Your task to perform on an android device: create a new album in the google photos Image 0: 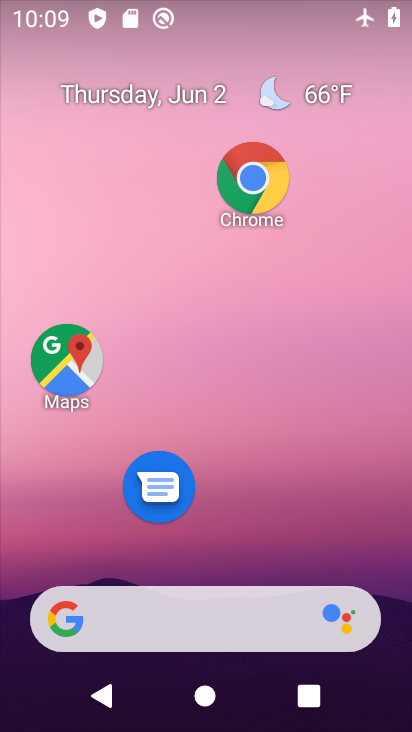
Step 0: drag from (233, 728) to (169, 25)
Your task to perform on an android device: create a new album in the google photos Image 1: 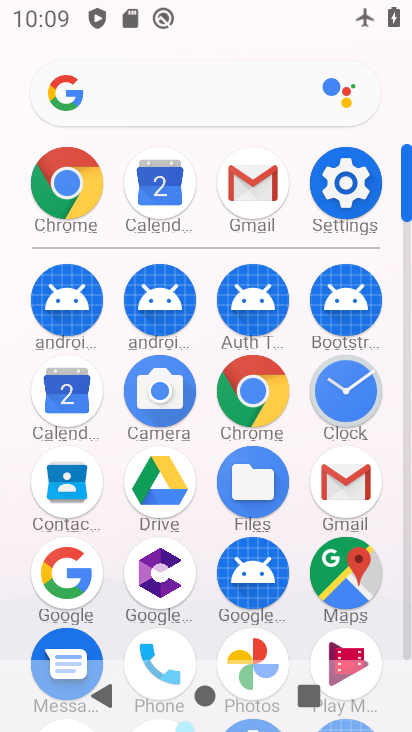
Step 1: click (248, 654)
Your task to perform on an android device: create a new album in the google photos Image 2: 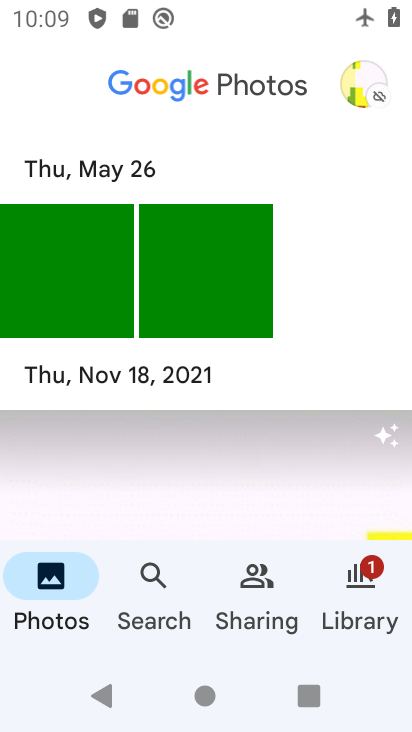
Step 2: click (361, 592)
Your task to perform on an android device: create a new album in the google photos Image 3: 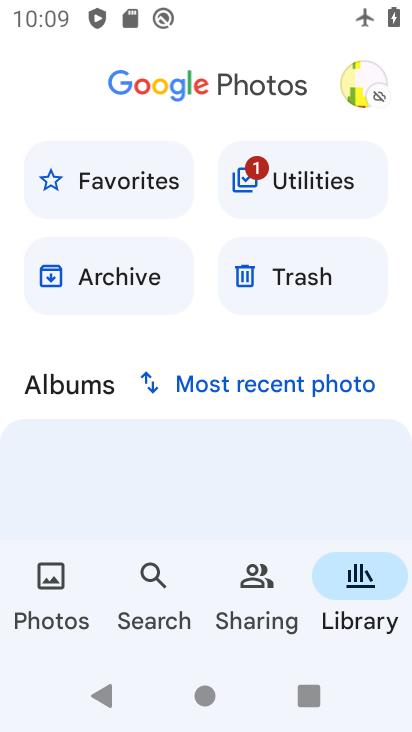
Step 3: drag from (191, 565) to (191, 319)
Your task to perform on an android device: create a new album in the google photos Image 4: 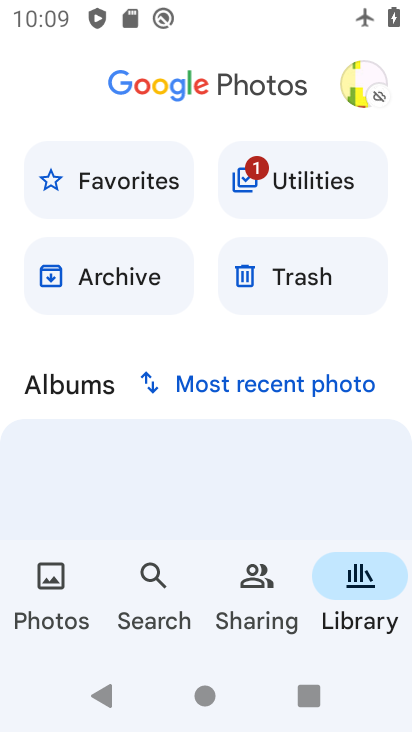
Step 4: drag from (210, 509) to (217, 267)
Your task to perform on an android device: create a new album in the google photos Image 5: 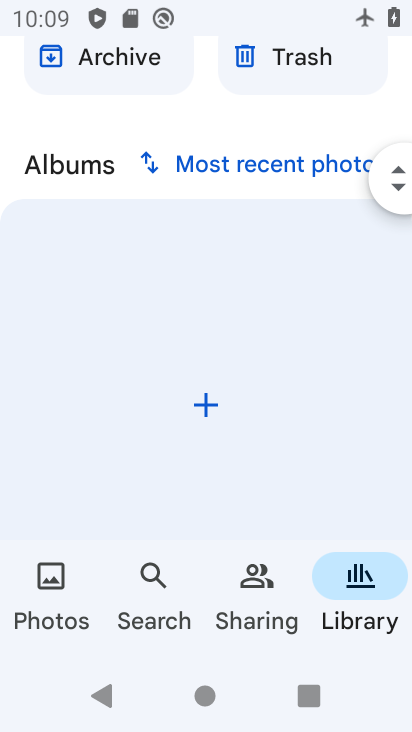
Step 5: click (208, 397)
Your task to perform on an android device: create a new album in the google photos Image 6: 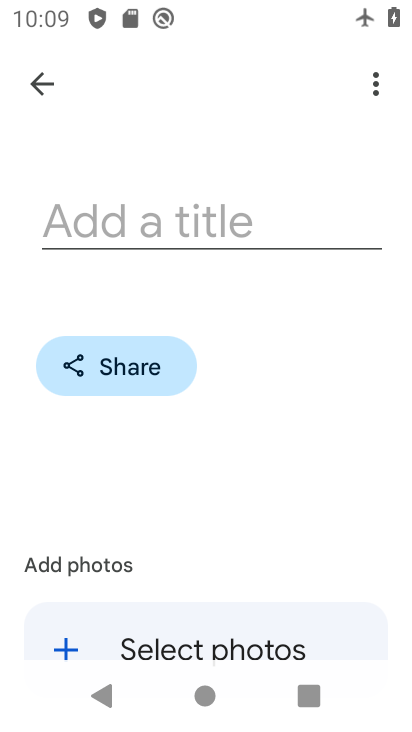
Step 6: click (214, 215)
Your task to perform on an android device: create a new album in the google photos Image 7: 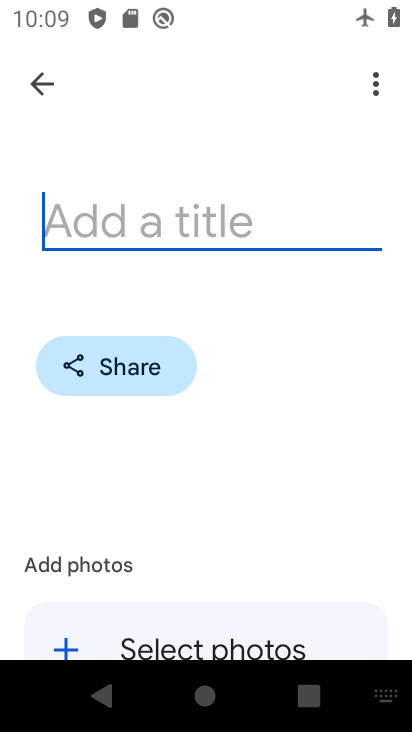
Step 7: type "nbnbn"
Your task to perform on an android device: create a new album in the google photos Image 8: 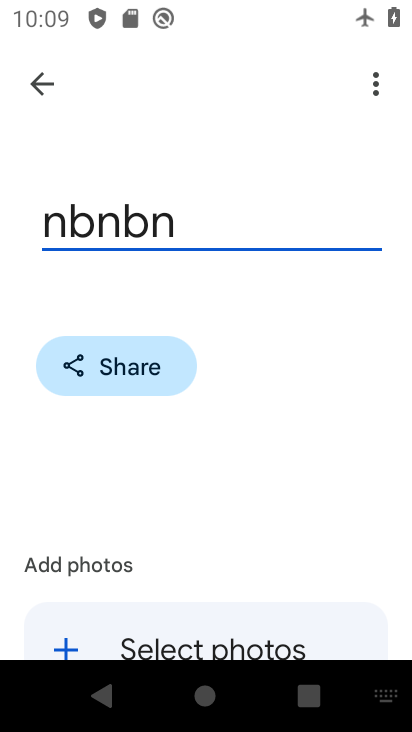
Step 8: click (248, 539)
Your task to perform on an android device: create a new album in the google photos Image 9: 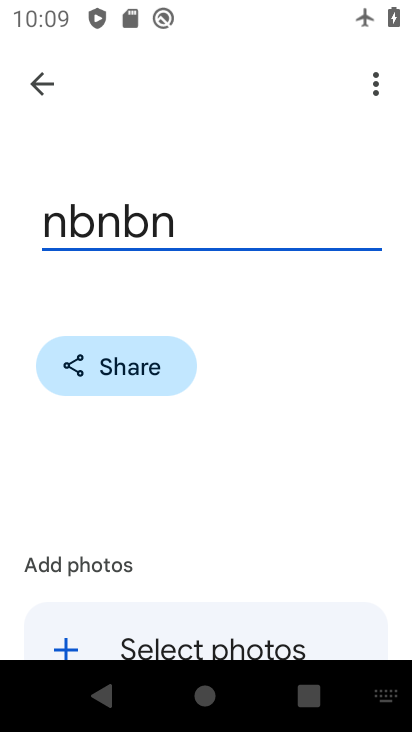
Step 9: click (70, 639)
Your task to perform on an android device: create a new album in the google photos Image 10: 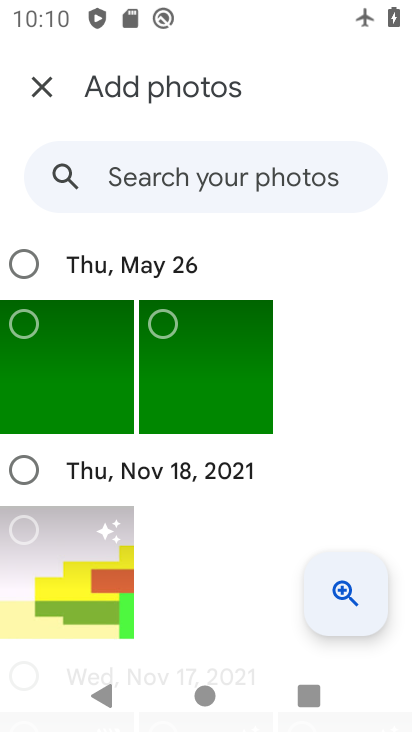
Step 10: click (162, 327)
Your task to perform on an android device: create a new album in the google photos Image 11: 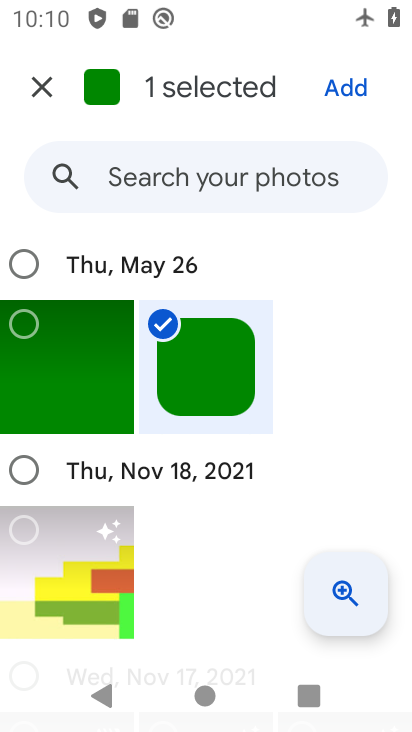
Step 11: click (28, 321)
Your task to perform on an android device: create a new album in the google photos Image 12: 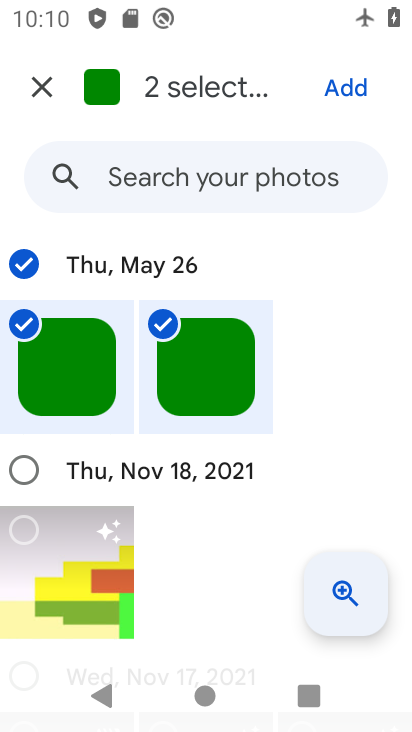
Step 12: click (341, 84)
Your task to perform on an android device: create a new album in the google photos Image 13: 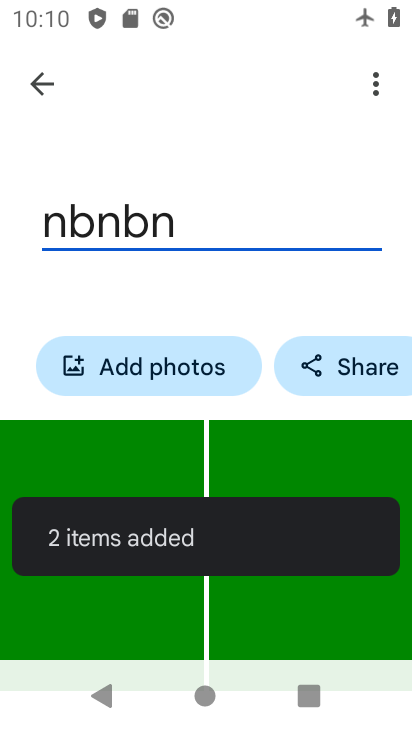
Step 13: task complete